Your task to perform on an android device: toggle notifications settings in the gmail app Image 0: 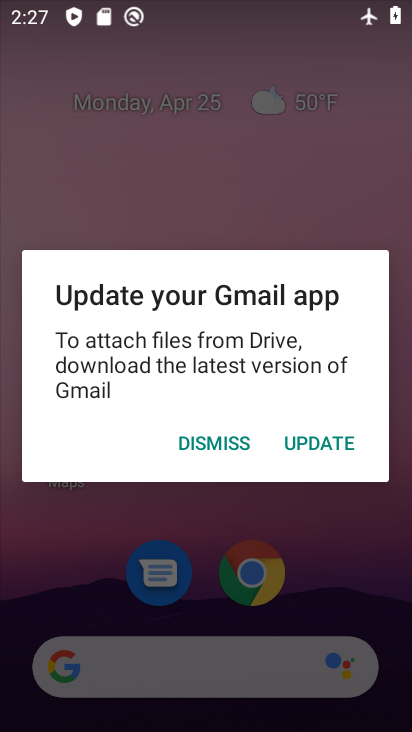
Step 0: drag from (366, 549) to (357, 254)
Your task to perform on an android device: toggle notifications settings in the gmail app Image 1: 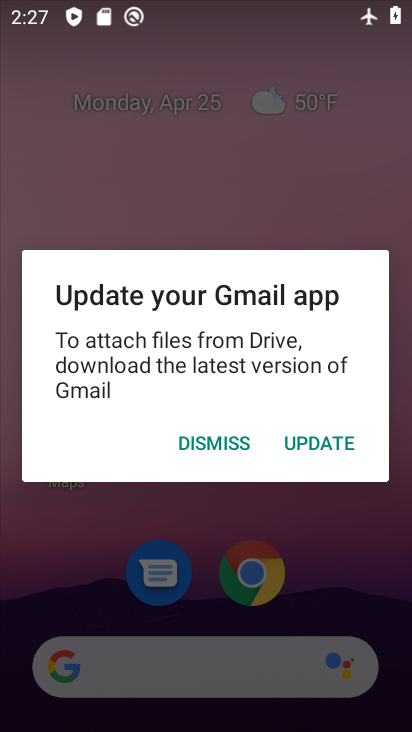
Step 1: press home button
Your task to perform on an android device: toggle notifications settings in the gmail app Image 2: 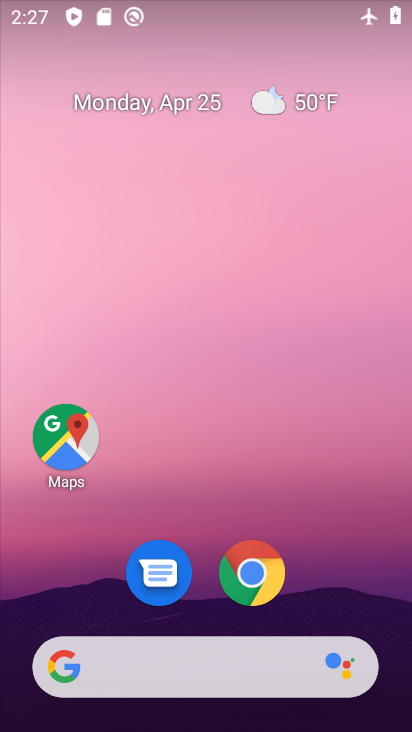
Step 2: drag from (321, 478) to (316, 19)
Your task to perform on an android device: toggle notifications settings in the gmail app Image 3: 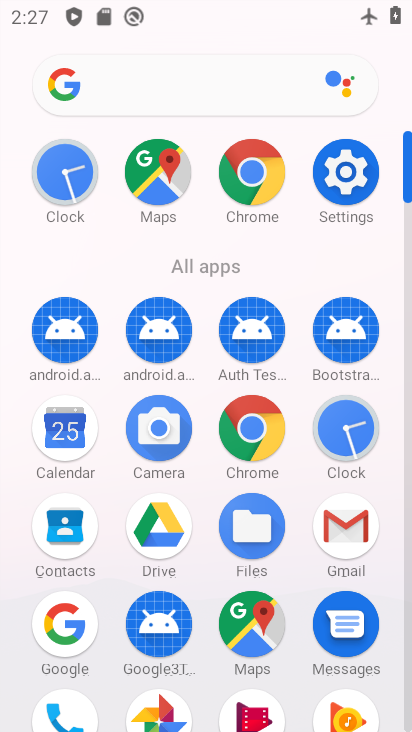
Step 3: click (361, 525)
Your task to perform on an android device: toggle notifications settings in the gmail app Image 4: 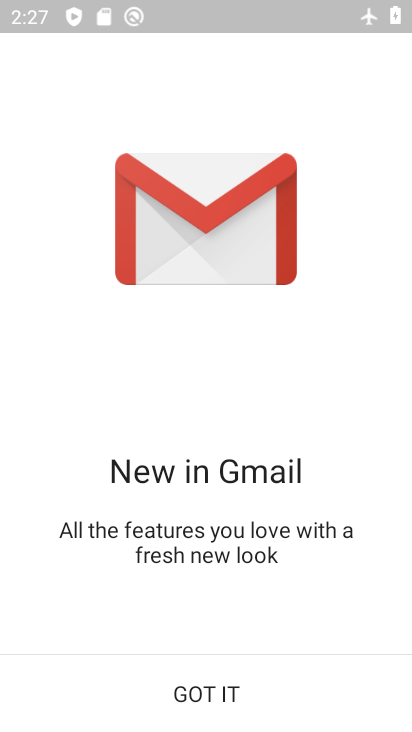
Step 4: click (170, 680)
Your task to perform on an android device: toggle notifications settings in the gmail app Image 5: 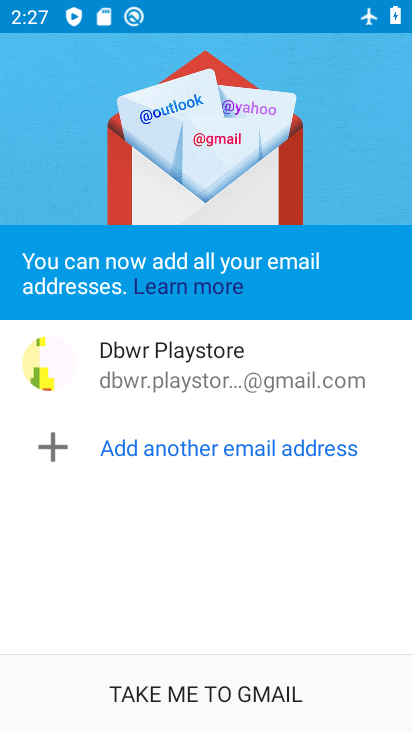
Step 5: click (193, 696)
Your task to perform on an android device: toggle notifications settings in the gmail app Image 6: 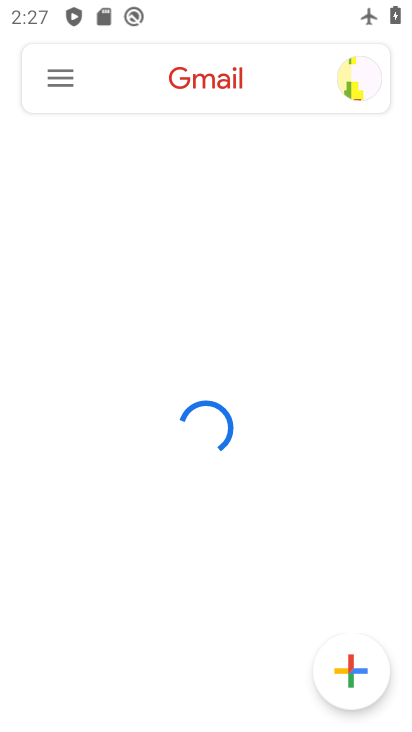
Step 6: click (40, 75)
Your task to perform on an android device: toggle notifications settings in the gmail app Image 7: 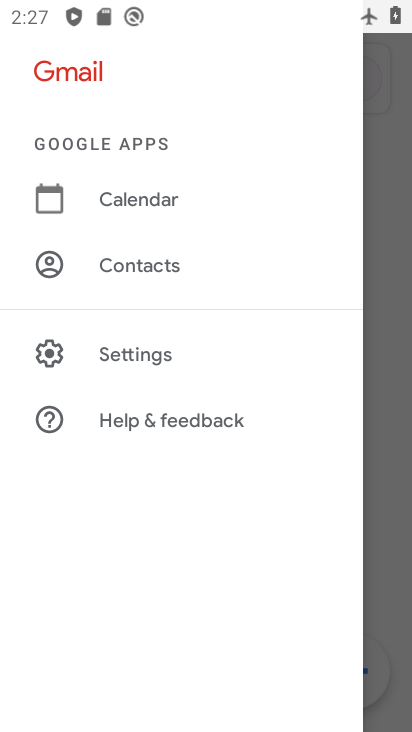
Step 7: click (146, 373)
Your task to perform on an android device: toggle notifications settings in the gmail app Image 8: 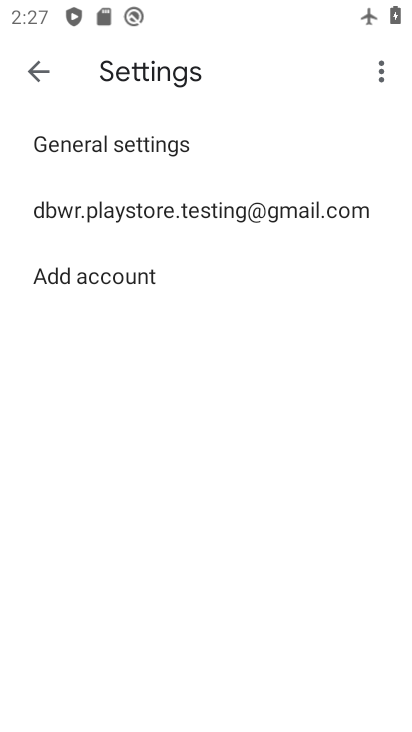
Step 8: click (236, 212)
Your task to perform on an android device: toggle notifications settings in the gmail app Image 9: 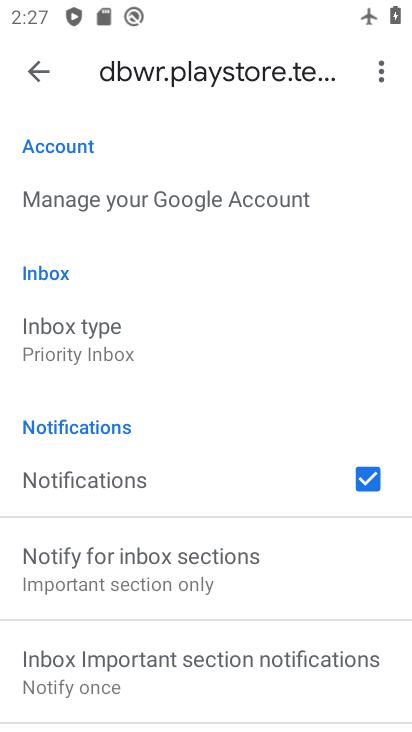
Step 9: click (66, 495)
Your task to perform on an android device: toggle notifications settings in the gmail app Image 10: 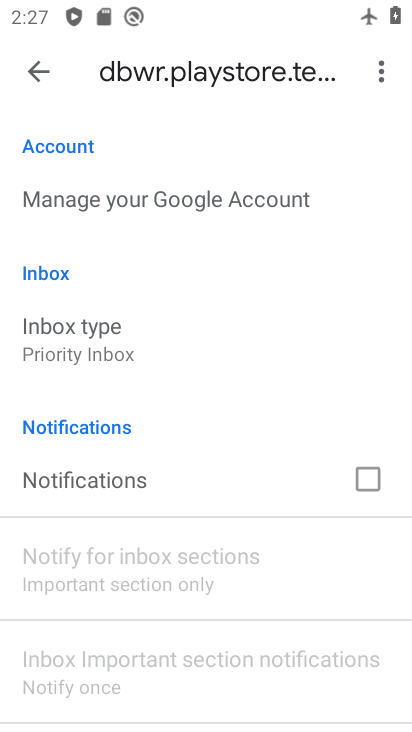
Step 10: task complete